Your task to perform on an android device: set the timer Image 0: 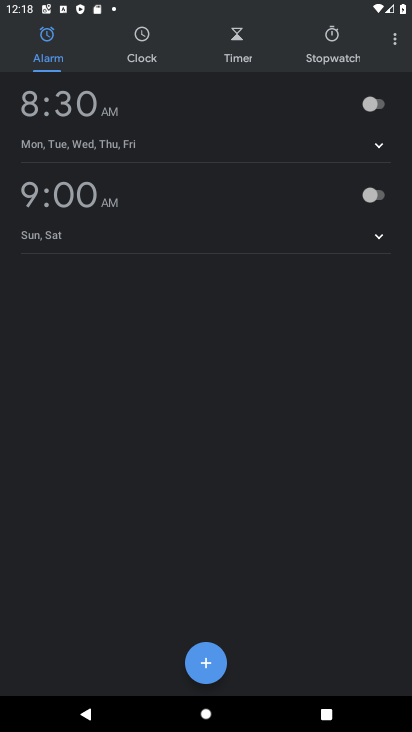
Step 0: click (238, 37)
Your task to perform on an android device: set the timer Image 1: 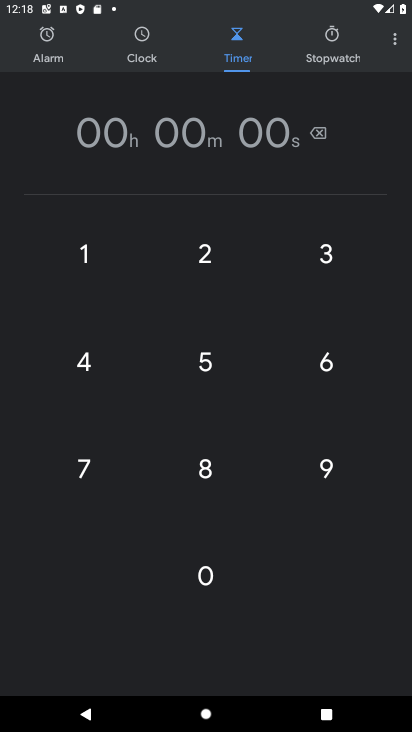
Step 1: task complete